Your task to perform on an android device: Go to display settings Image 0: 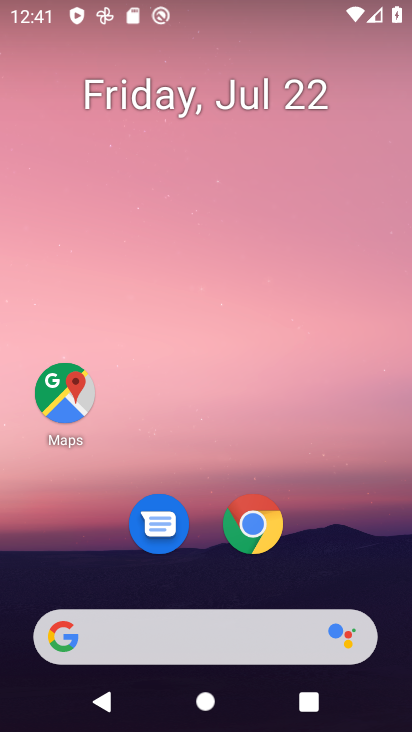
Step 0: press home button
Your task to perform on an android device: Go to display settings Image 1: 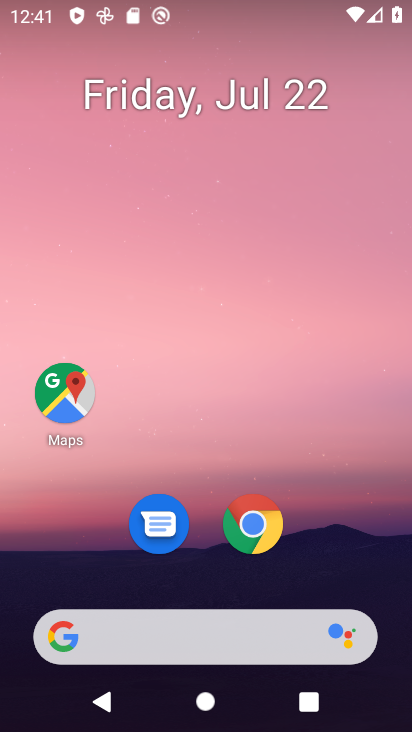
Step 1: drag from (178, 654) to (340, 34)
Your task to perform on an android device: Go to display settings Image 2: 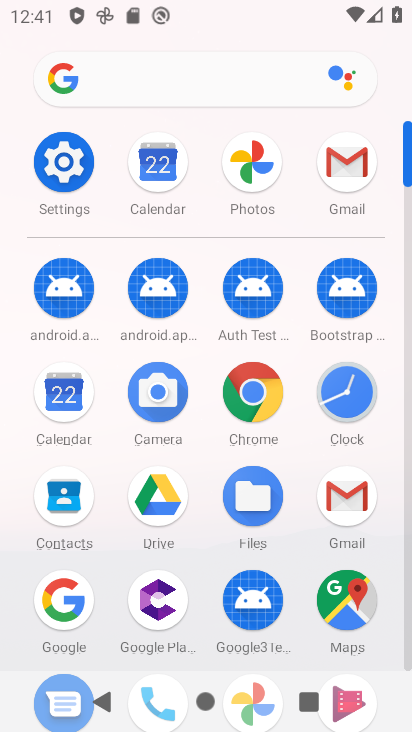
Step 2: click (73, 154)
Your task to perform on an android device: Go to display settings Image 3: 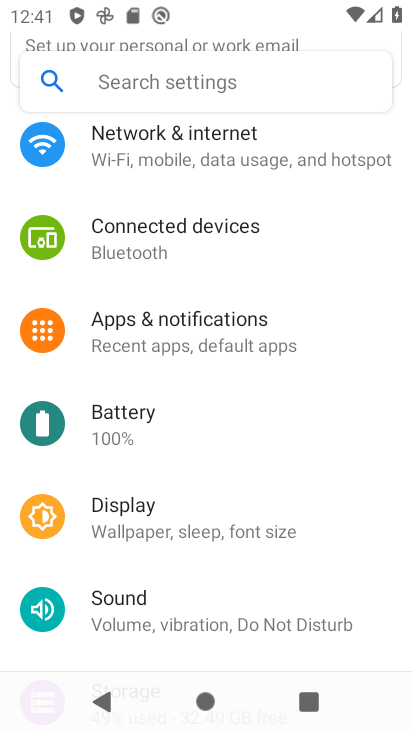
Step 3: click (159, 530)
Your task to perform on an android device: Go to display settings Image 4: 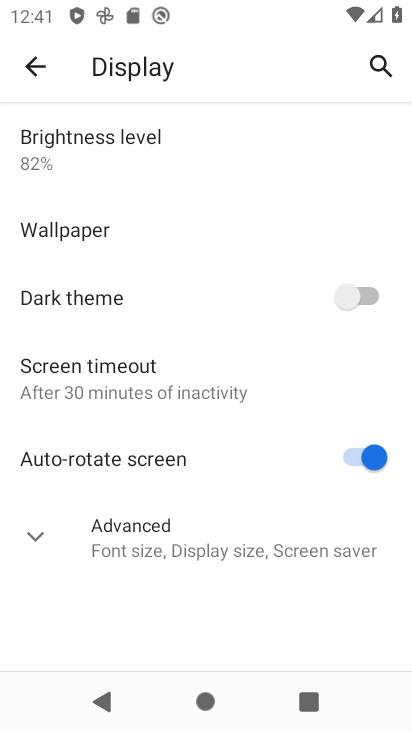
Step 4: task complete